Your task to perform on an android device: manage bookmarks in the chrome app Image 0: 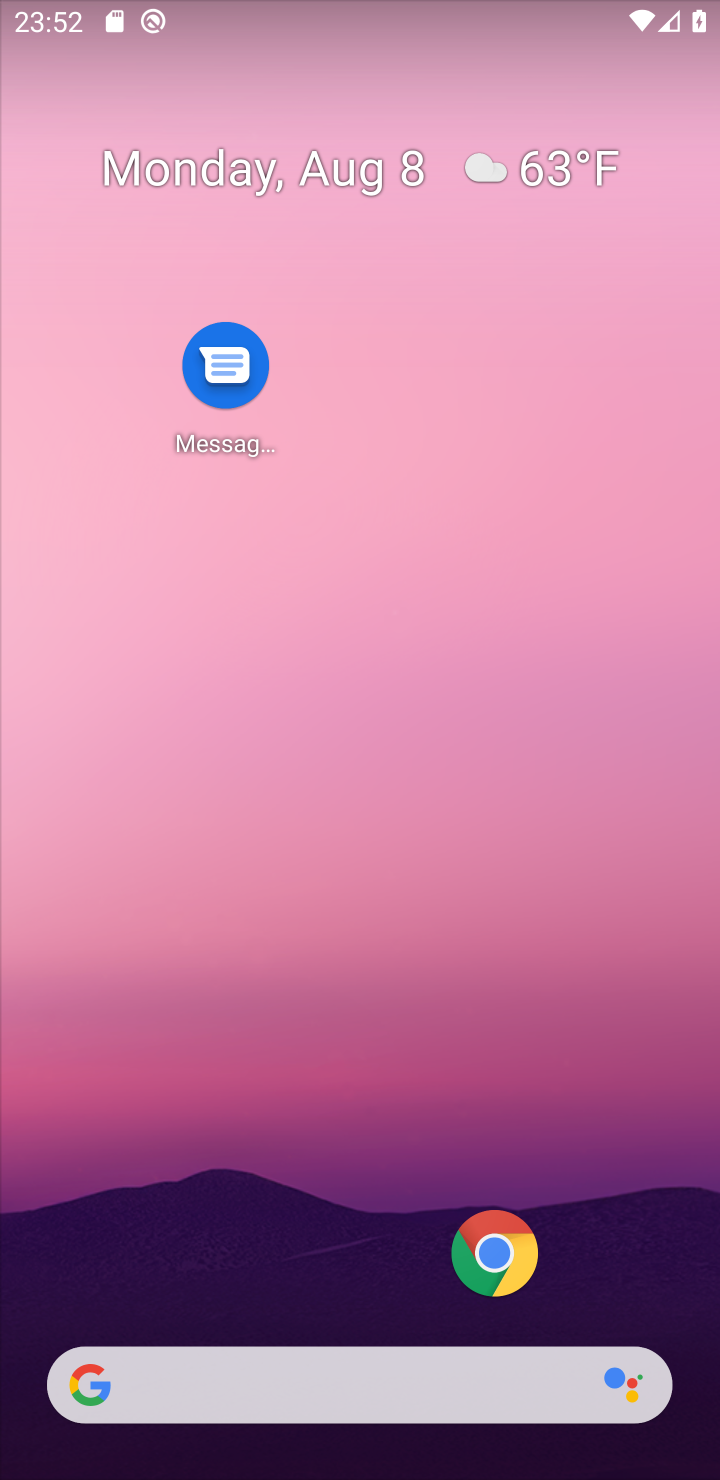
Step 0: drag from (405, 907) to (493, 223)
Your task to perform on an android device: manage bookmarks in the chrome app Image 1: 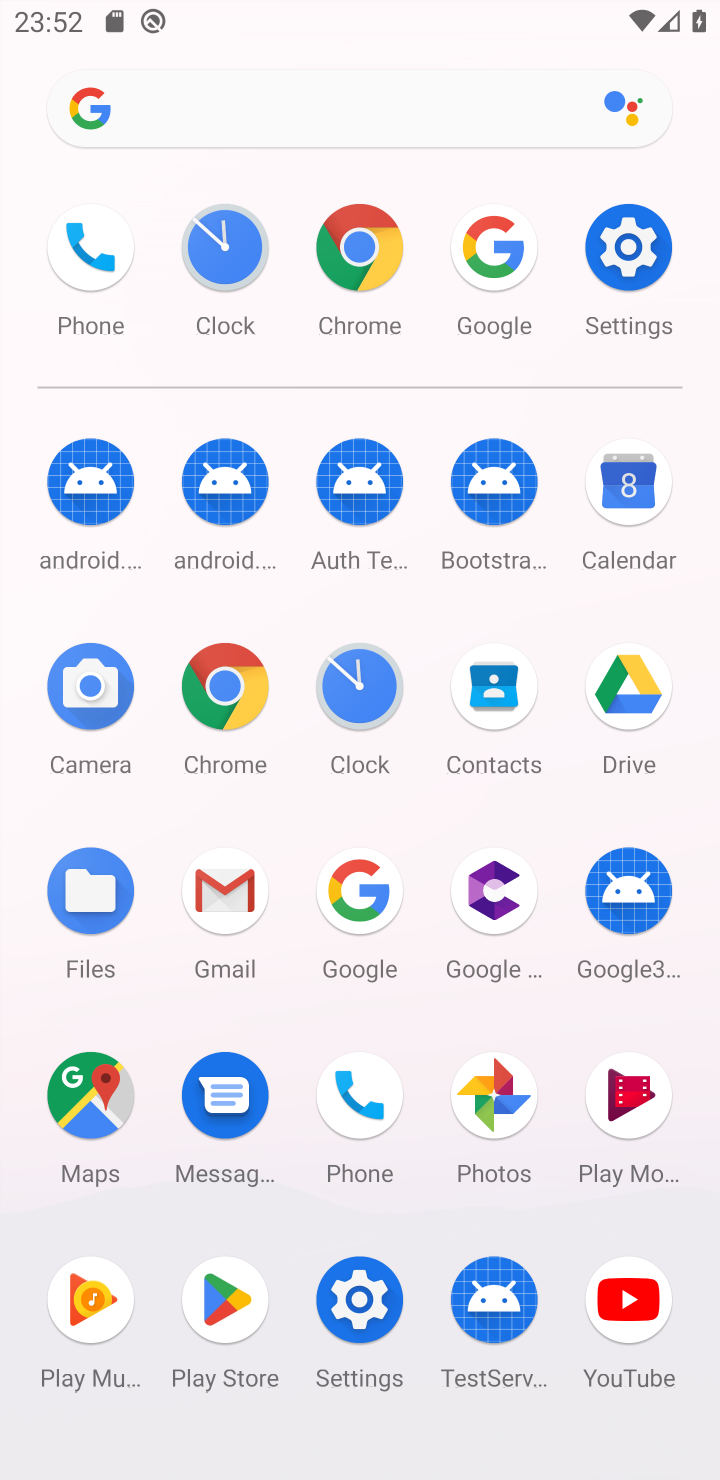
Step 1: click (323, 227)
Your task to perform on an android device: manage bookmarks in the chrome app Image 2: 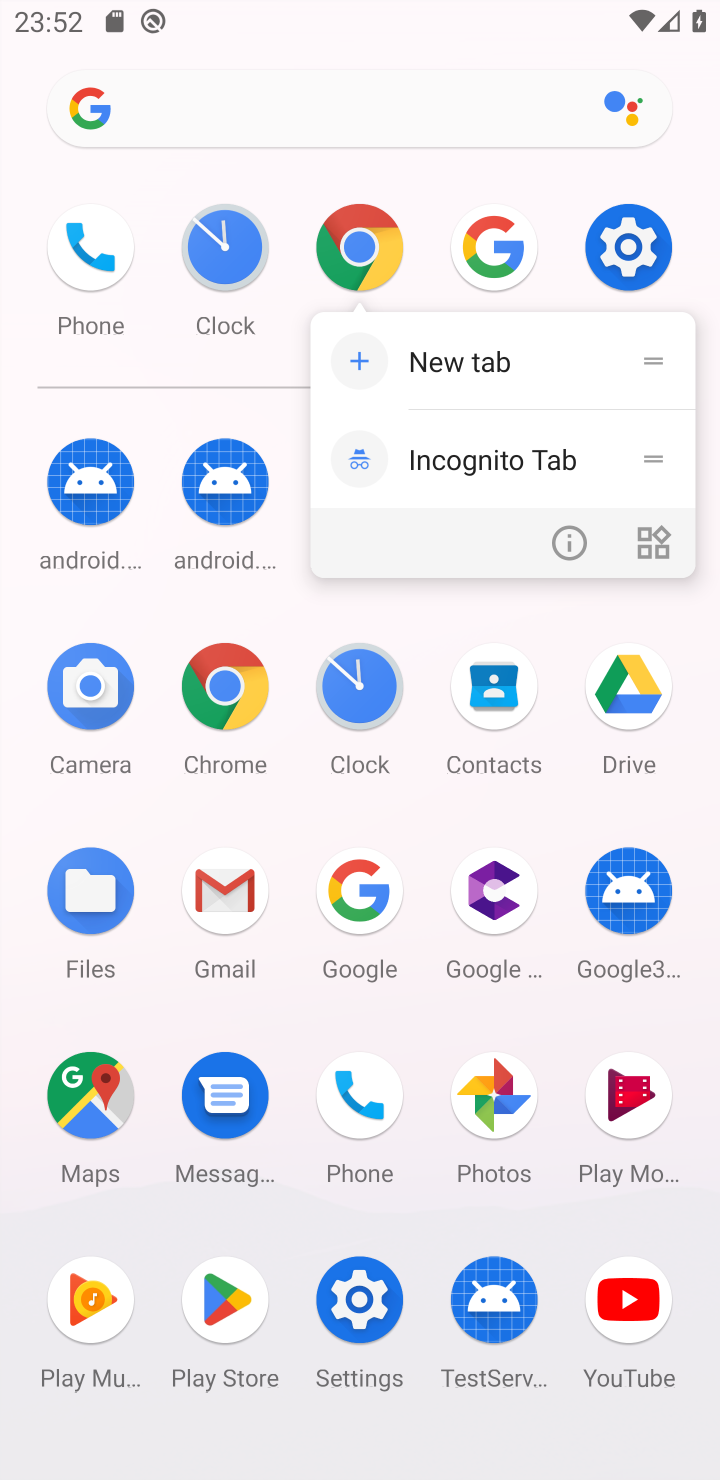
Step 2: click (385, 239)
Your task to perform on an android device: manage bookmarks in the chrome app Image 3: 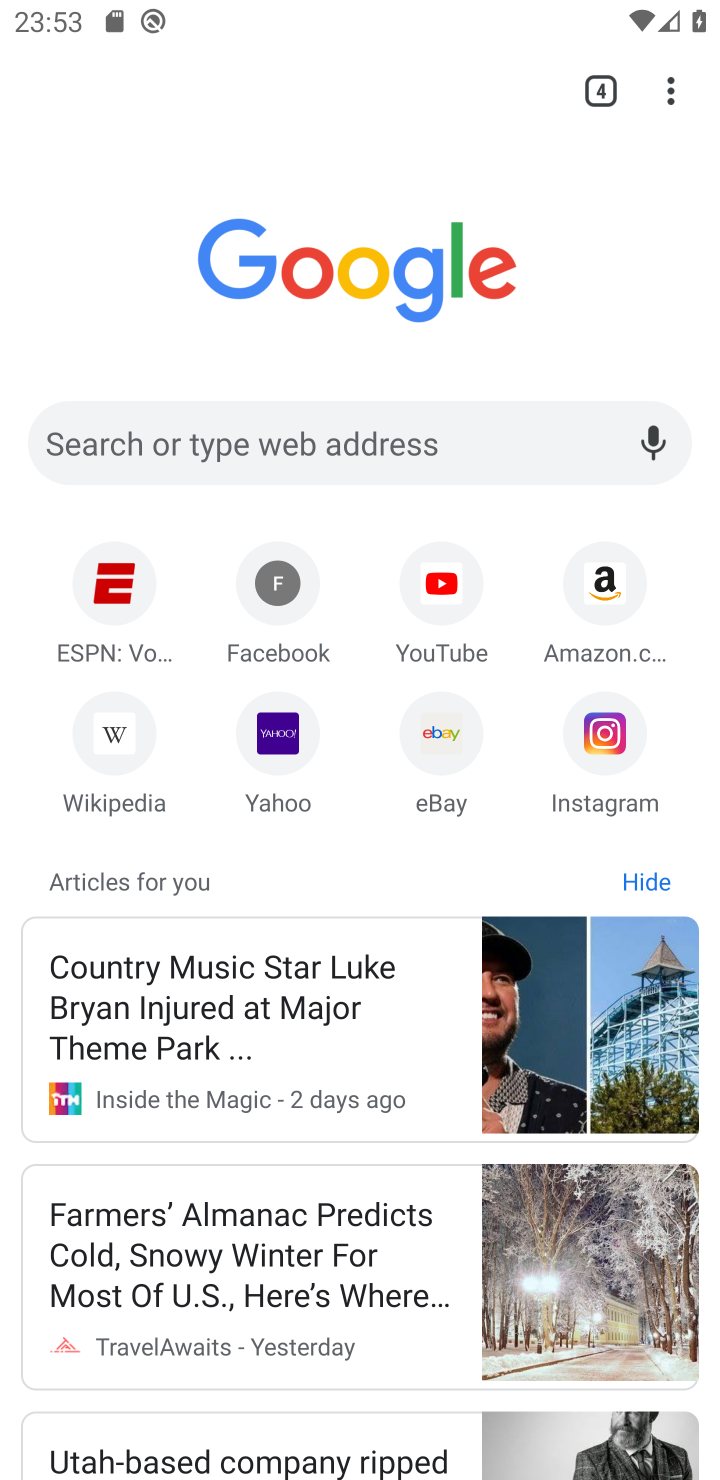
Step 3: click (680, 83)
Your task to perform on an android device: manage bookmarks in the chrome app Image 4: 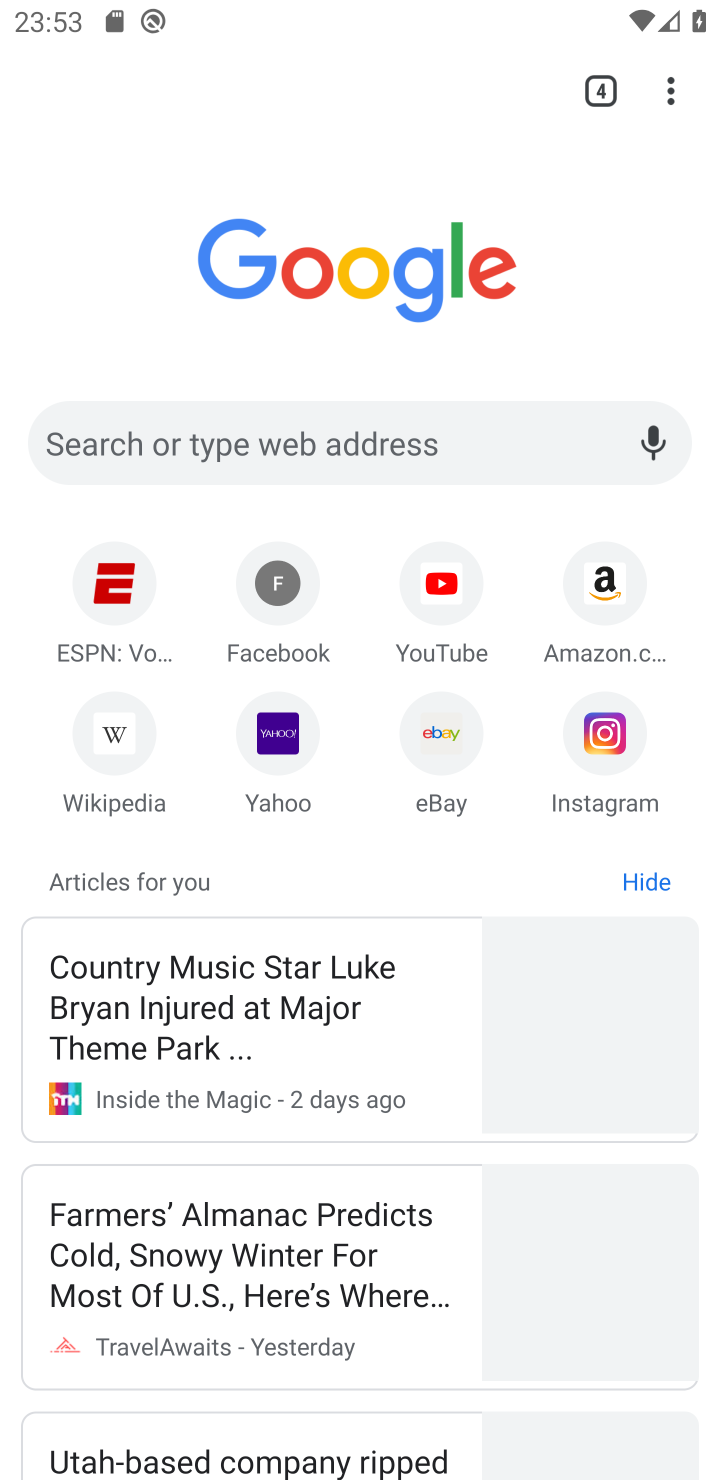
Step 4: click (680, 83)
Your task to perform on an android device: manage bookmarks in the chrome app Image 5: 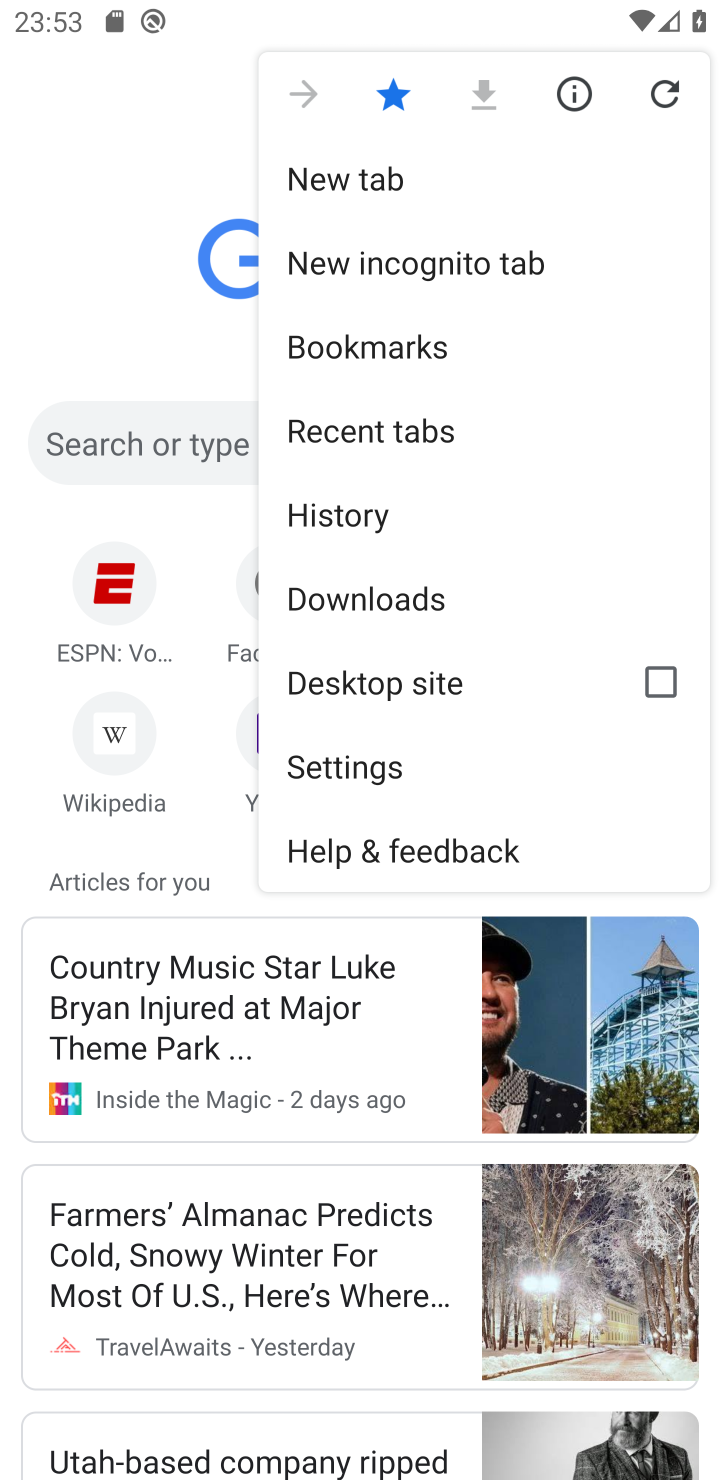
Step 5: click (383, 327)
Your task to perform on an android device: manage bookmarks in the chrome app Image 6: 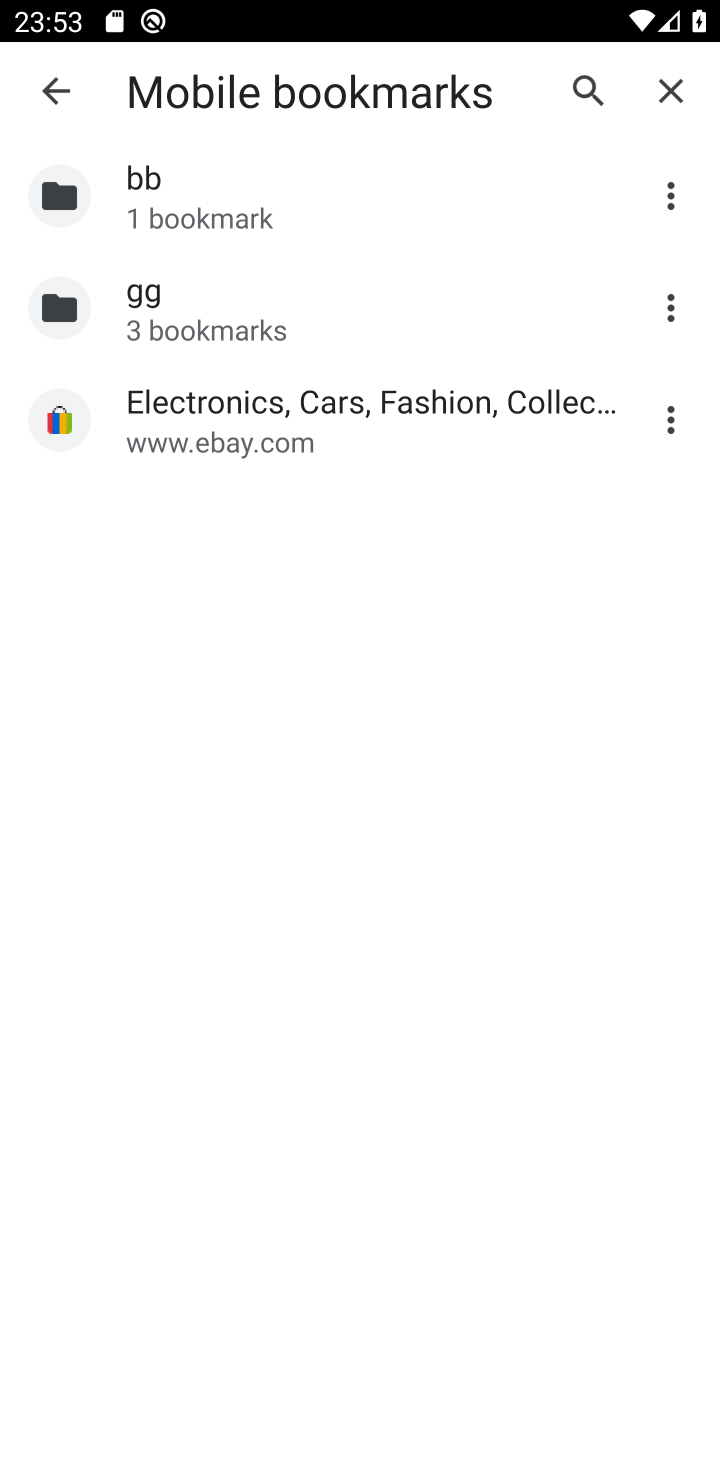
Step 6: click (174, 268)
Your task to perform on an android device: manage bookmarks in the chrome app Image 7: 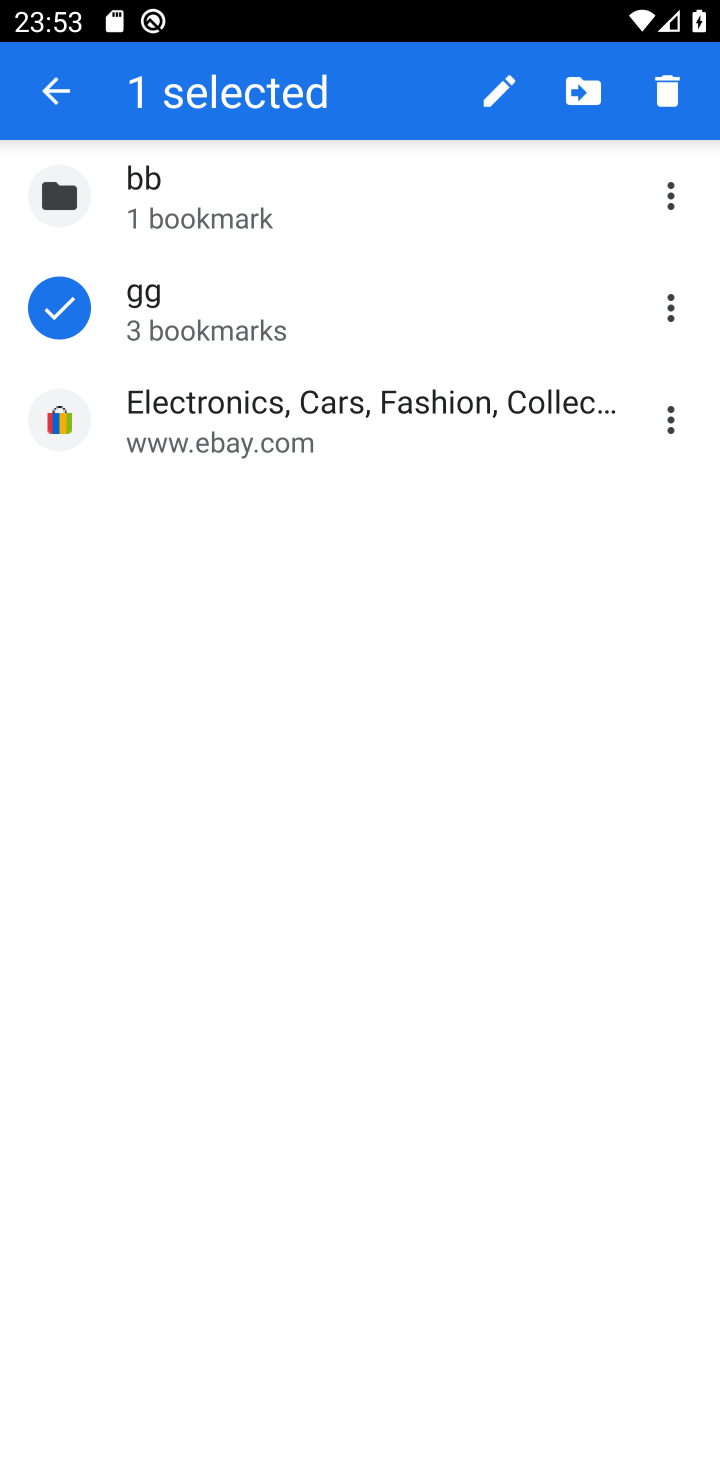
Step 7: click (121, 409)
Your task to perform on an android device: manage bookmarks in the chrome app Image 8: 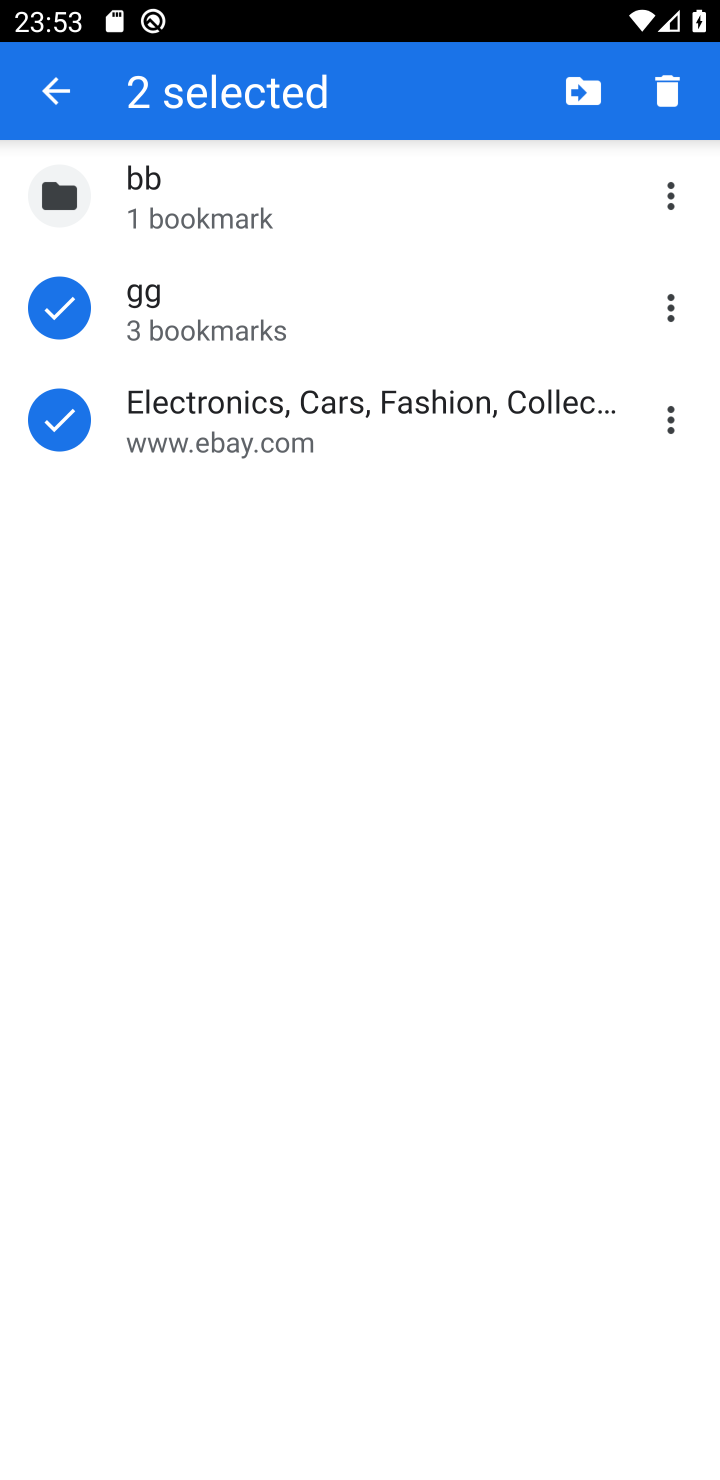
Step 8: click (561, 75)
Your task to perform on an android device: manage bookmarks in the chrome app Image 9: 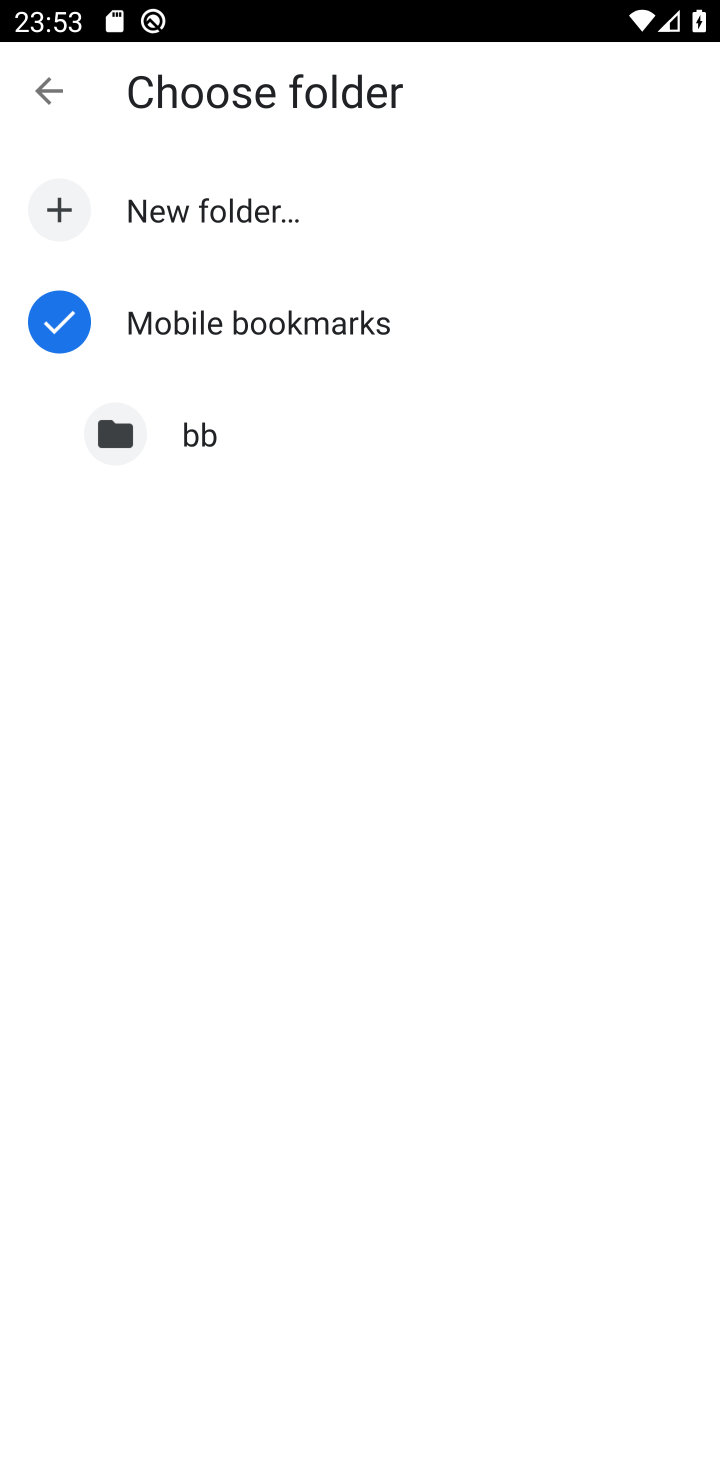
Step 9: click (177, 315)
Your task to perform on an android device: manage bookmarks in the chrome app Image 10: 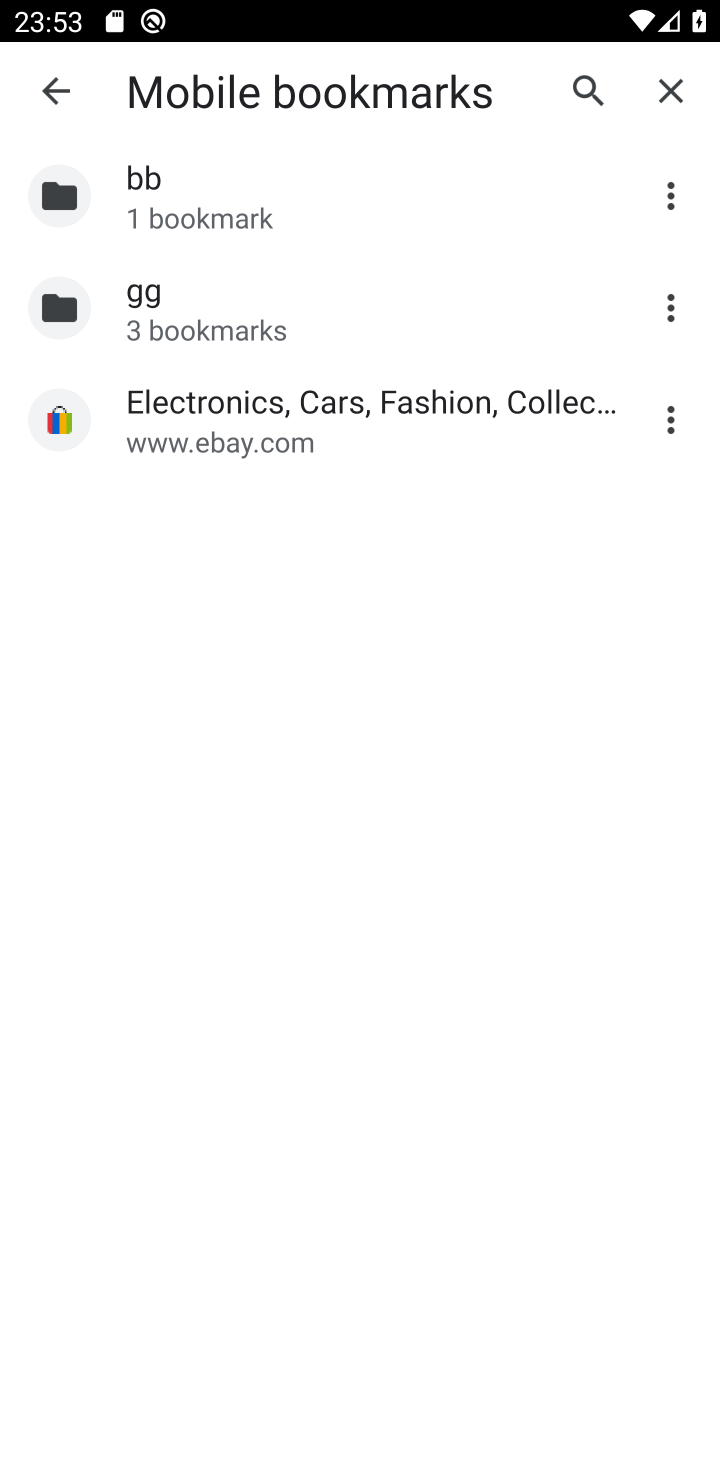
Step 10: task complete